Your task to perform on an android device: toggle improve location accuracy Image 0: 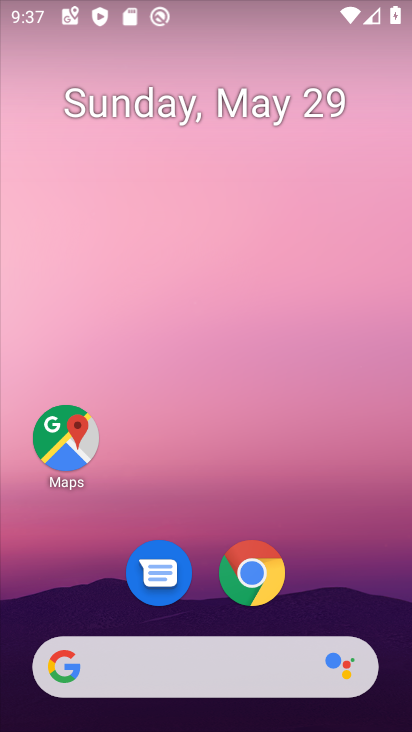
Step 0: drag from (322, 382) to (202, 2)
Your task to perform on an android device: toggle improve location accuracy Image 1: 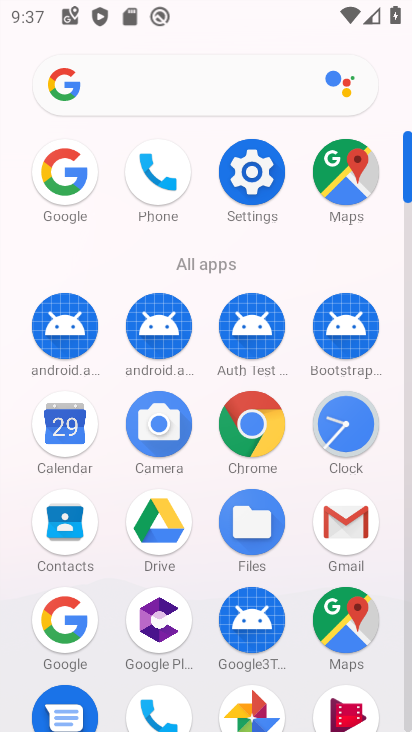
Step 1: click (279, 178)
Your task to perform on an android device: toggle improve location accuracy Image 2: 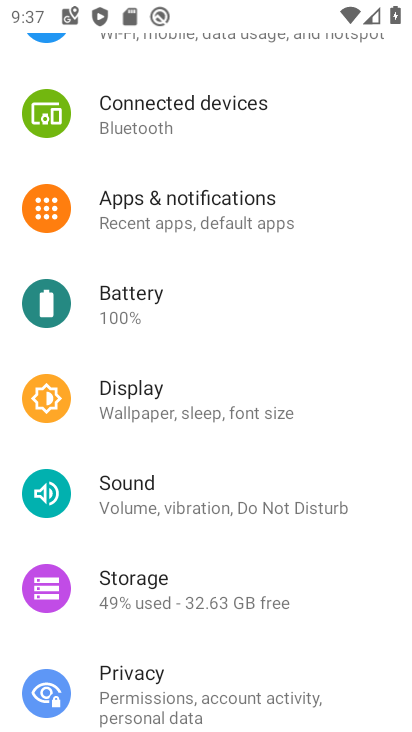
Step 2: drag from (223, 674) to (250, 304)
Your task to perform on an android device: toggle improve location accuracy Image 3: 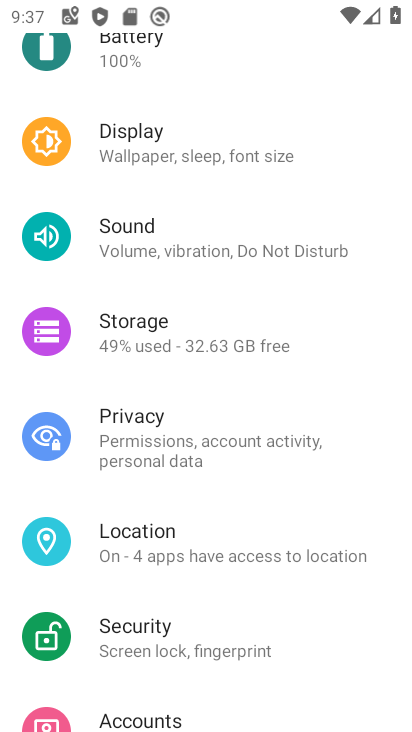
Step 3: click (183, 547)
Your task to perform on an android device: toggle improve location accuracy Image 4: 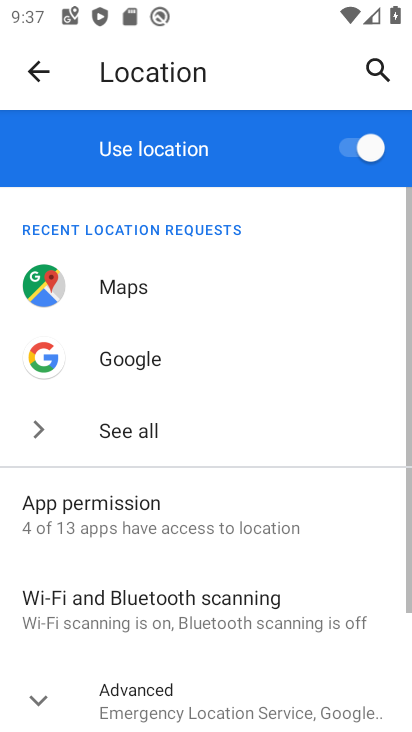
Step 4: drag from (258, 611) to (273, 148)
Your task to perform on an android device: toggle improve location accuracy Image 5: 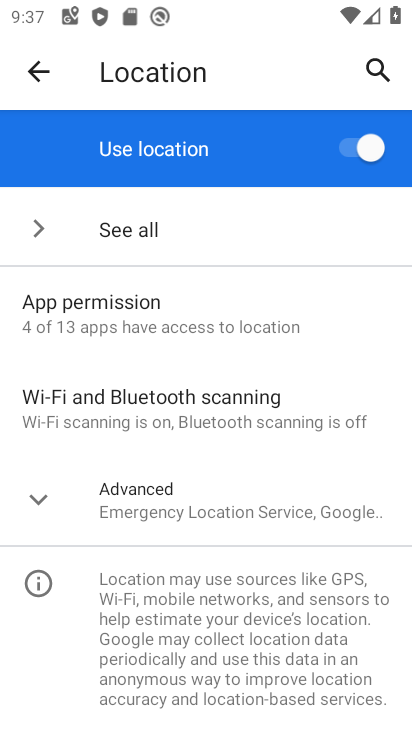
Step 5: click (183, 505)
Your task to perform on an android device: toggle improve location accuracy Image 6: 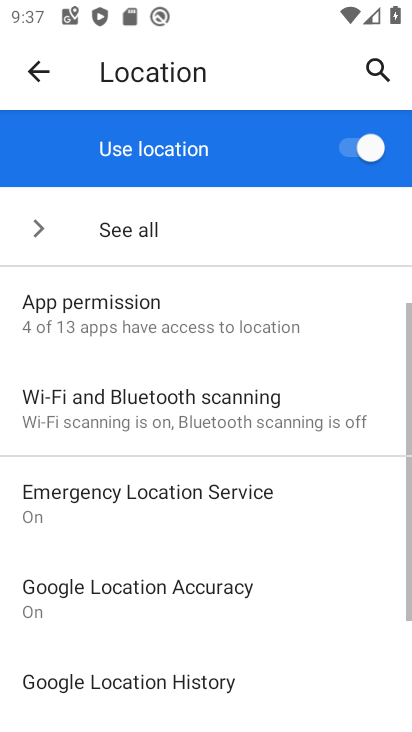
Step 6: drag from (259, 662) to (297, 492)
Your task to perform on an android device: toggle improve location accuracy Image 7: 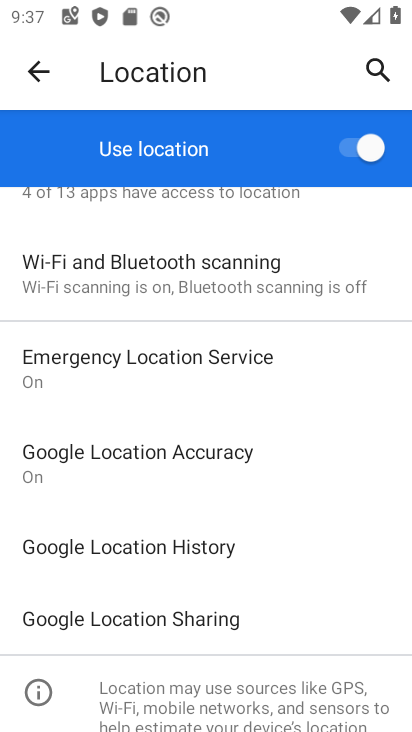
Step 7: click (272, 446)
Your task to perform on an android device: toggle improve location accuracy Image 8: 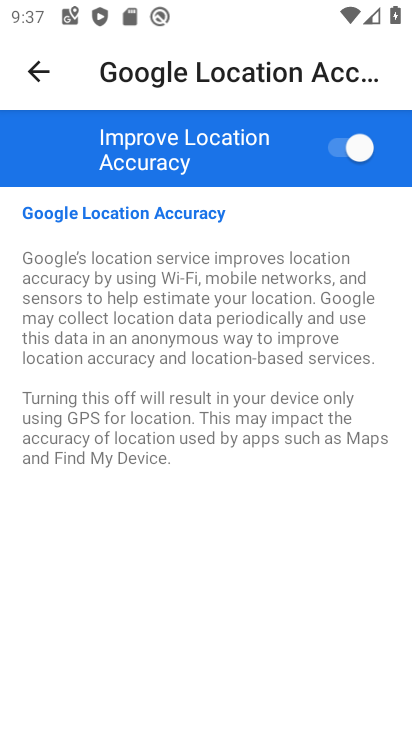
Step 8: click (372, 150)
Your task to perform on an android device: toggle improve location accuracy Image 9: 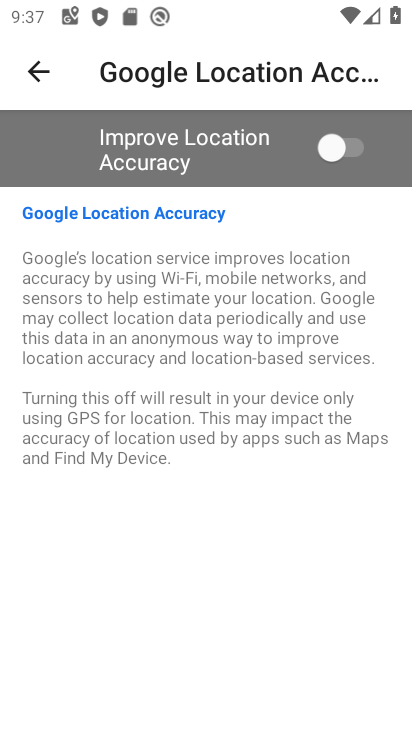
Step 9: task complete